Your task to perform on an android device: Search for vegetarian restaurants on Maps Image 0: 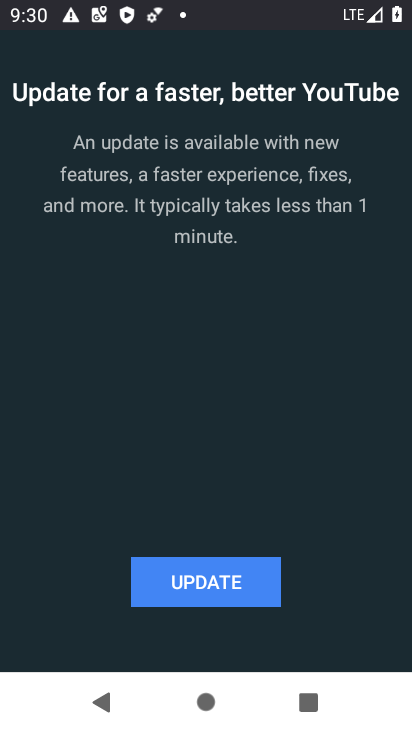
Step 0: press home button
Your task to perform on an android device: Search for vegetarian restaurants on Maps Image 1: 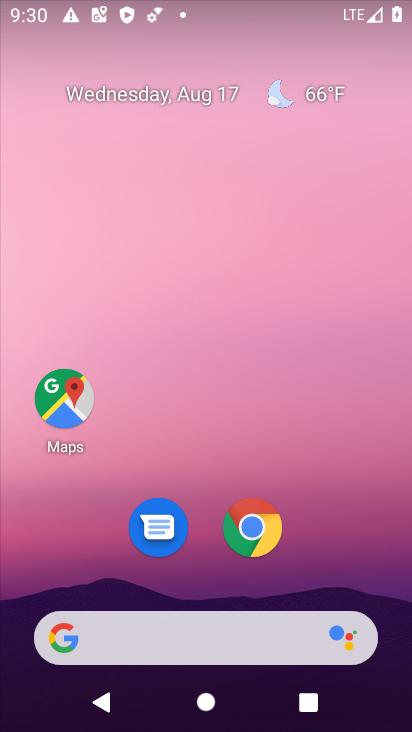
Step 1: click (61, 384)
Your task to perform on an android device: Search for vegetarian restaurants on Maps Image 2: 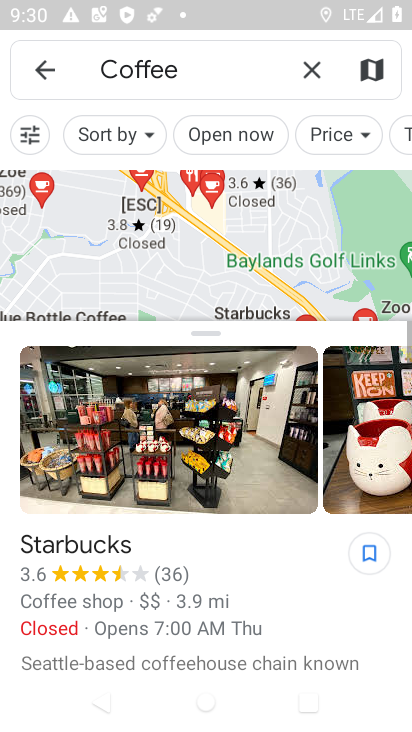
Step 2: click (315, 67)
Your task to perform on an android device: Search for vegetarian restaurants on Maps Image 3: 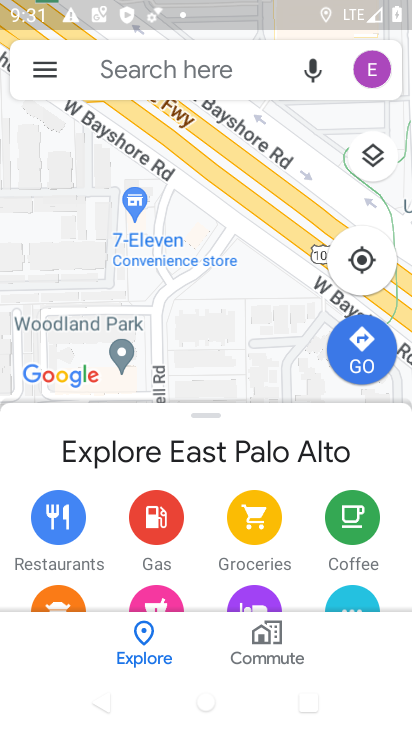
Step 3: click (138, 61)
Your task to perform on an android device: Search for vegetarian restaurants on Maps Image 4: 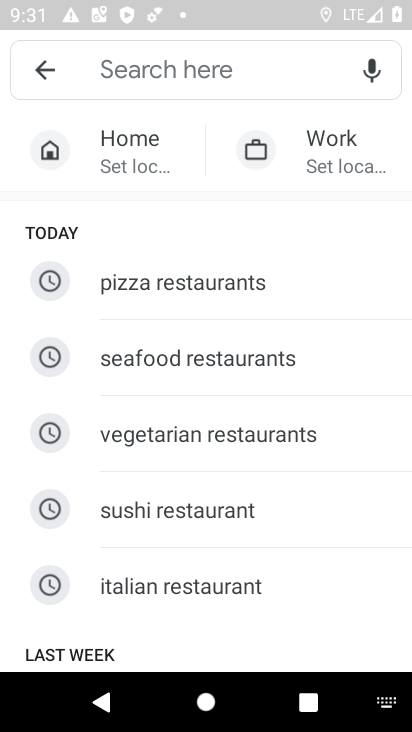
Step 4: click (274, 424)
Your task to perform on an android device: Search for vegetarian restaurants on Maps Image 5: 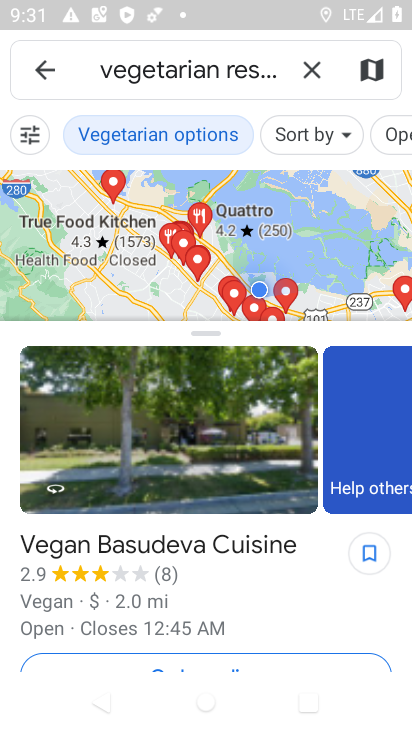
Step 5: task complete